Your task to perform on an android device: What is the news today? Image 0: 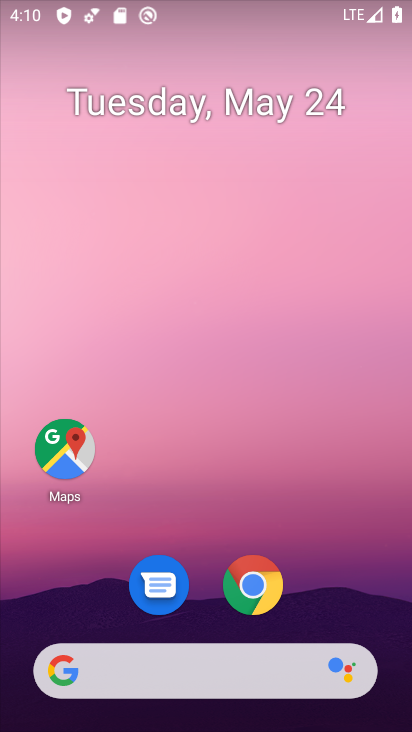
Step 0: click (251, 701)
Your task to perform on an android device: What is the news today? Image 1: 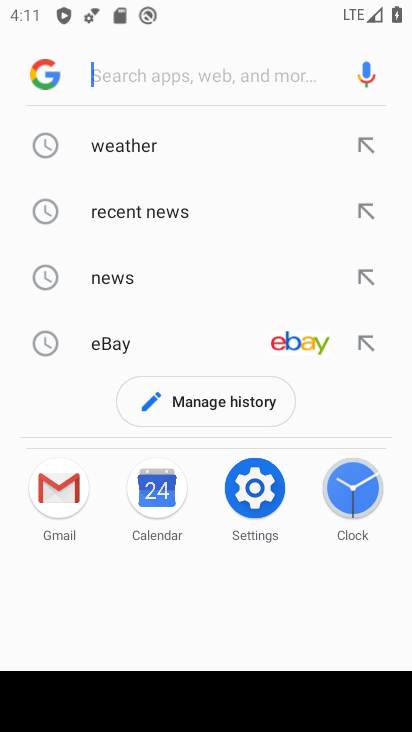
Step 1: click (113, 270)
Your task to perform on an android device: What is the news today? Image 2: 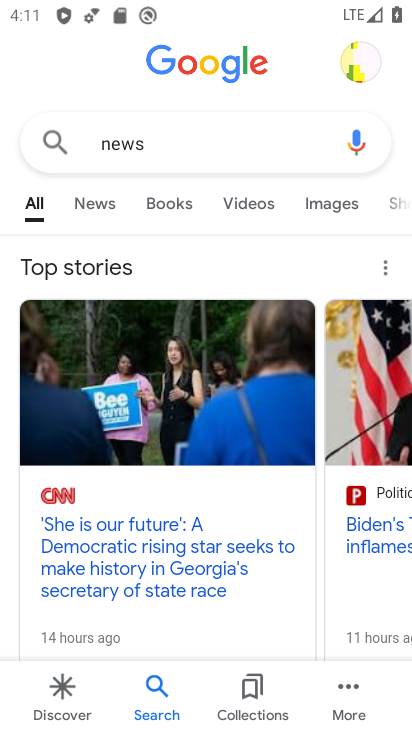
Step 2: click (86, 195)
Your task to perform on an android device: What is the news today? Image 3: 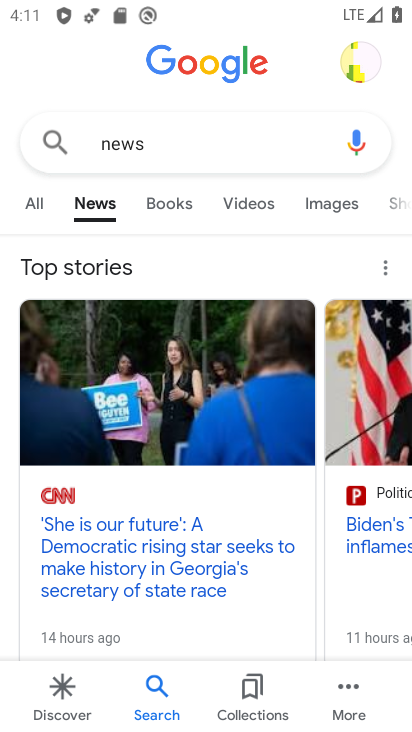
Step 3: task complete